Your task to perform on an android device: clear history in the chrome app Image 0: 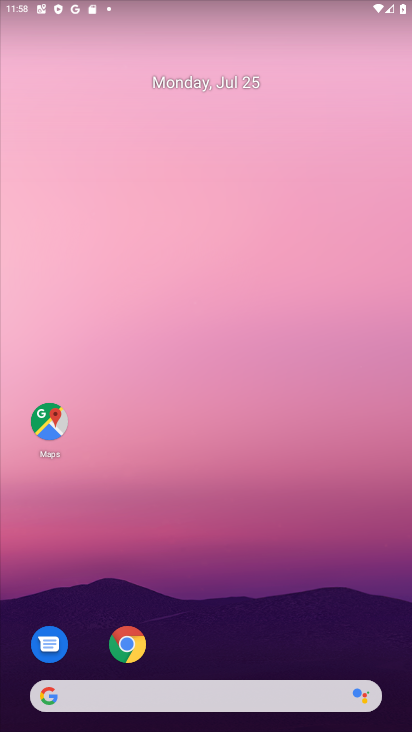
Step 0: click (126, 647)
Your task to perform on an android device: clear history in the chrome app Image 1: 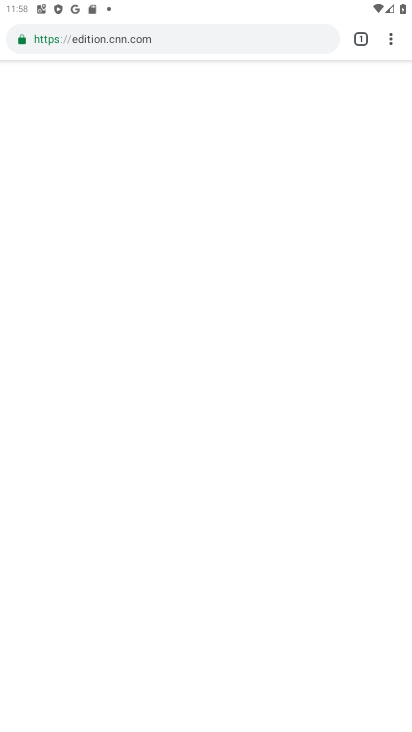
Step 1: click (390, 37)
Your task to perform on an android device: clear history in the chrome app Image 2: 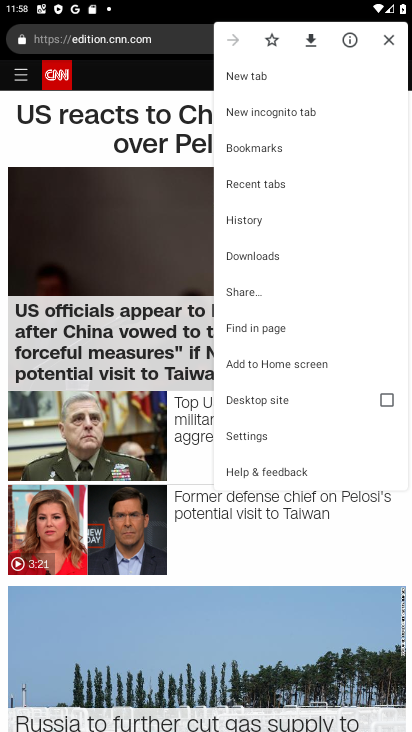
Step 2: click (246, 439)
Your task to perform on an android device: clear history in the chrome app Image 3: 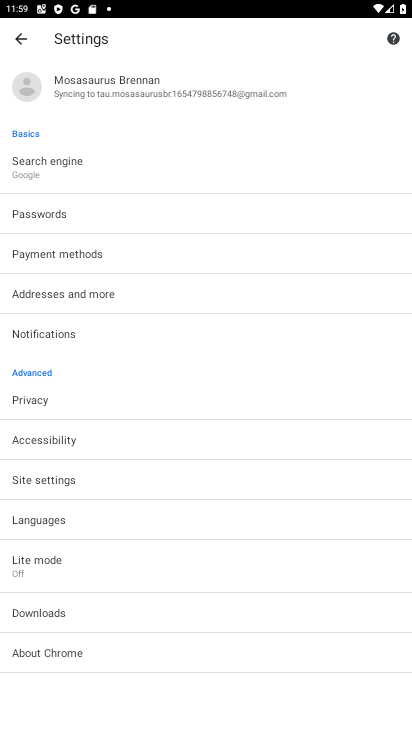
Step 3: click (40, 407)
Your task to perform on an android device: clear history in the chrome app Image 4: 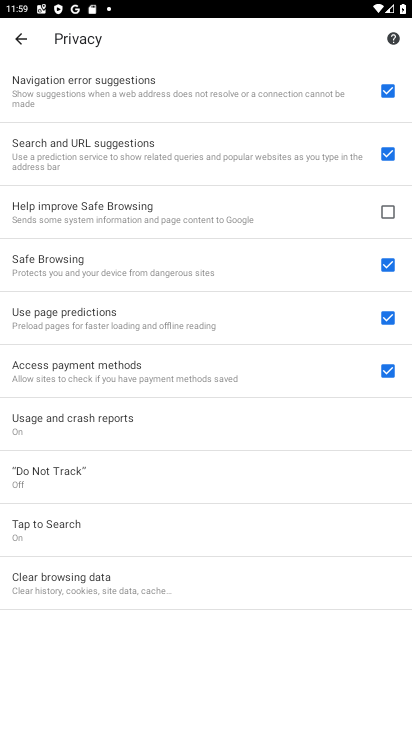
Step 4: click (35, 587)
Your task to perform on an android device: clear history in the chrome app Image 5: 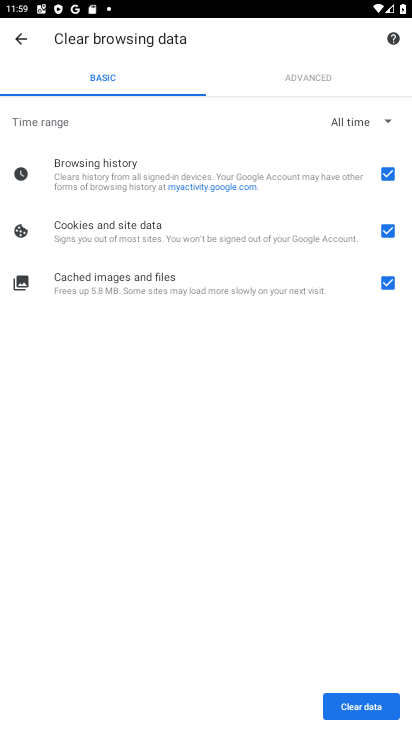
Step 5: click (386, 234)
Your task to perform on an android device: clear history in the chrome app Image 6: 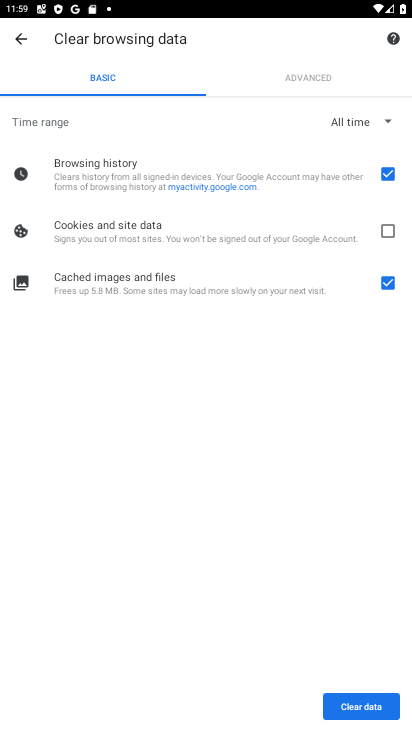
Step 6: click (384, 286)
Your task to perform on an android device: clear history in the chrome app Image 7: 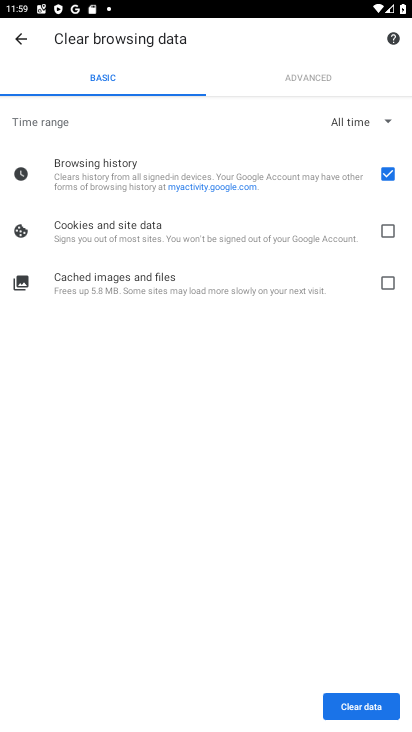
Step 7: click (357, 710)
Your task to perform on an android device: clear history in the chrome app Image 8: 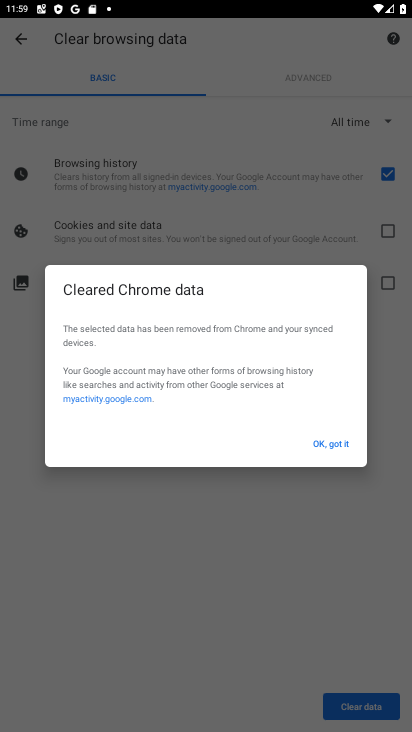
Step 8: click (329, 446)
Your task to perform on an android device: clear history in the chrome app Image 9: 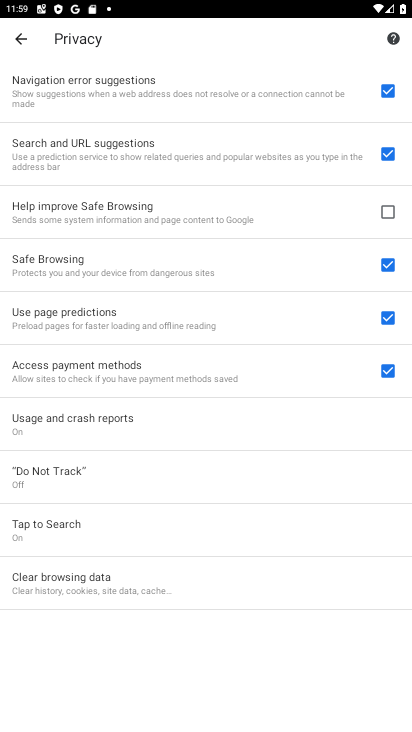
Step 9: task complete